Your task to perform on an android device: change the clock display to analog Image 0: 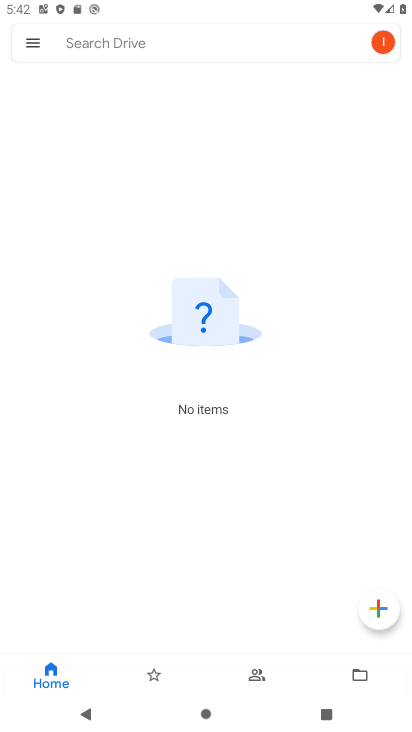
Step 0: press home button
Your task to perform on an android device: change the clock display to analog Image 1: 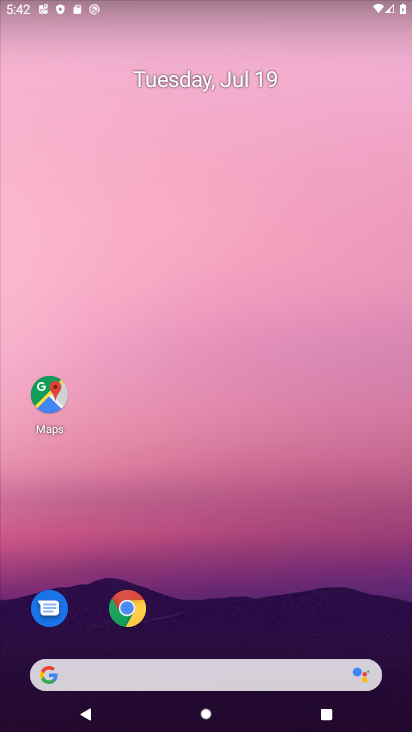
Step 1: drag from (163, 680) to (228, 8)
Your task to perform on an android device: change the clock display to analog Image 2: 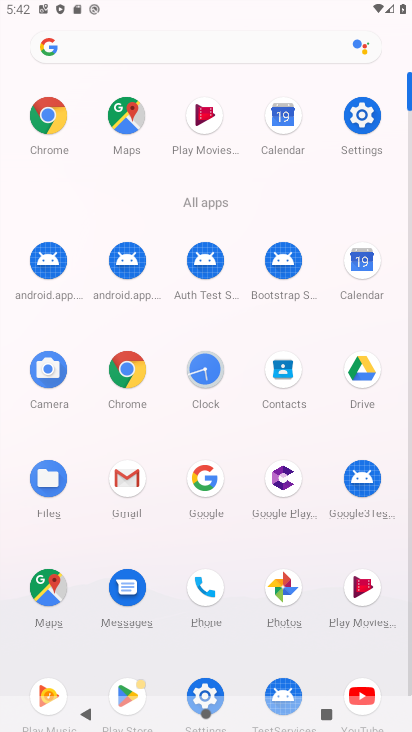
Step 2: click (208, 367)
Your task to perform on an android device: change the clock display to analog Image 3: 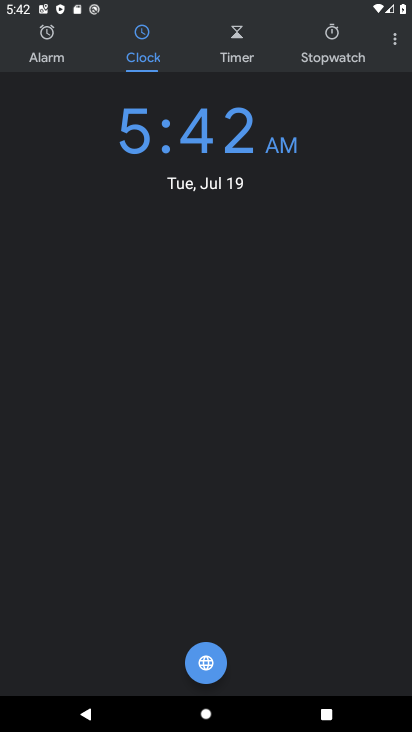
Step 3: click (394, 43)
Your task to perform on an android device: change the clock display to analog Image 4: 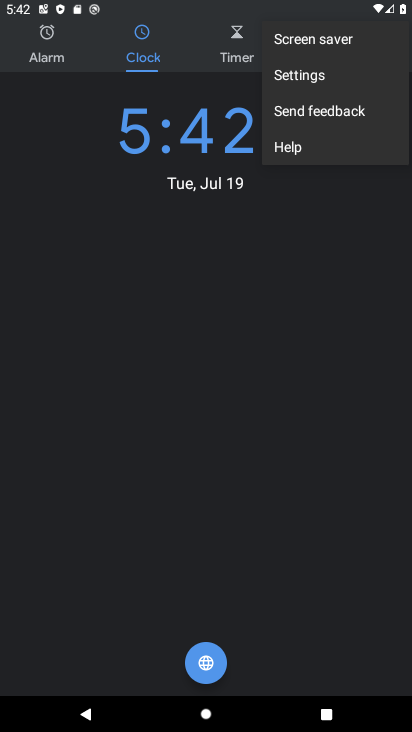
Step 4: click (342, 75)
Your task to perform on an android device: change the clock display to analog Image 5: 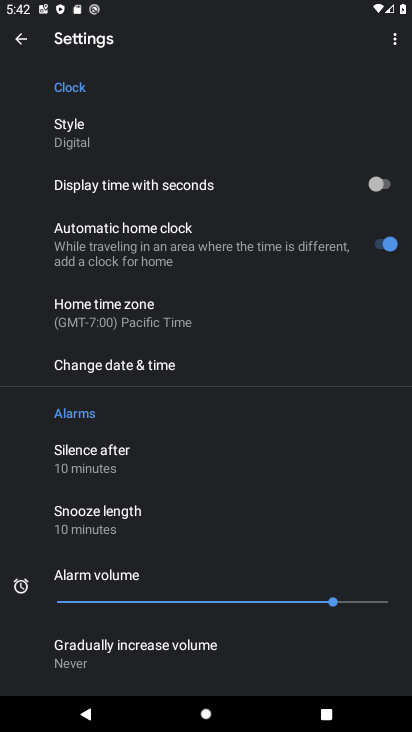
Step 5: click (116, 140)
Your task to perform on an android device: change the clock display to analog Image 6: 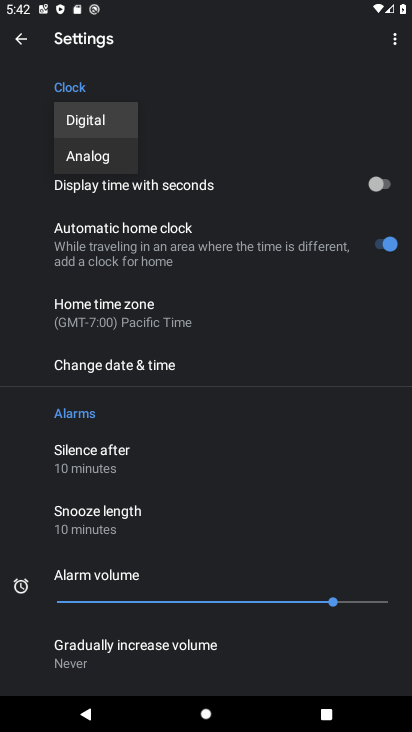
Step 6: click (108, 150)
Your task to perform on an android device: change the clock display to analog Image 7: 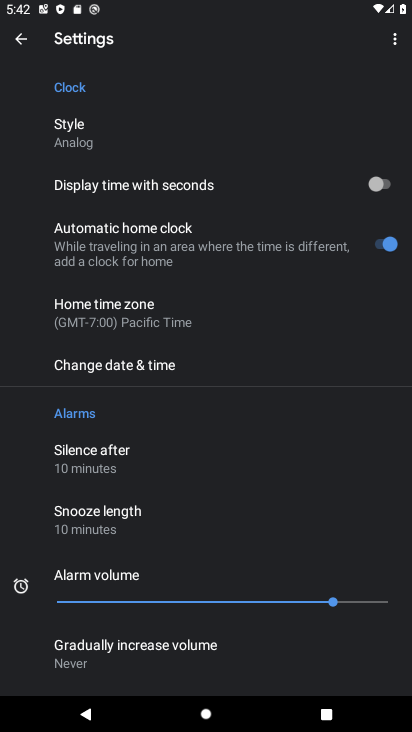
Step 7: task complete